Your task to perform on an android device: Turn off the flashlight Image 0: 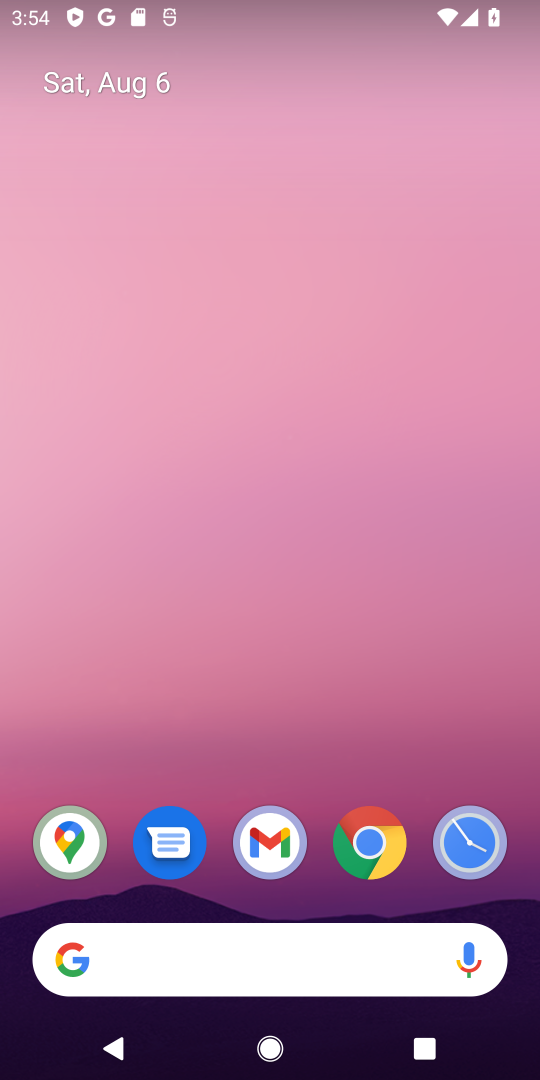
Step 0: drag from (494, 1013) to (372, 184)
Your task to perform on an android device: Turn off the flashlight Image 1: 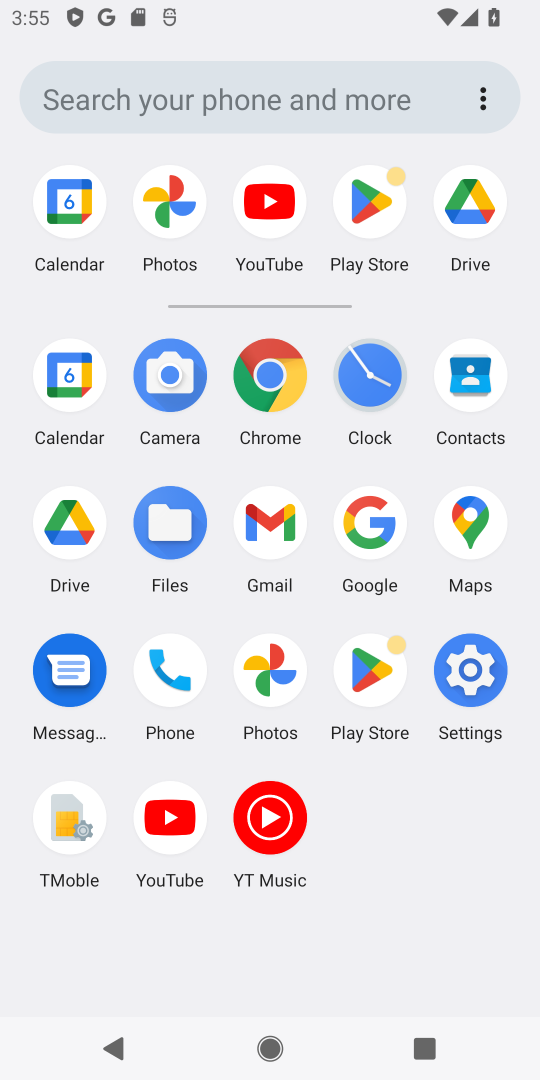
Step 1: click (464, 681)
Your task to perform on an android device: Turn off the flashlight Image 2: 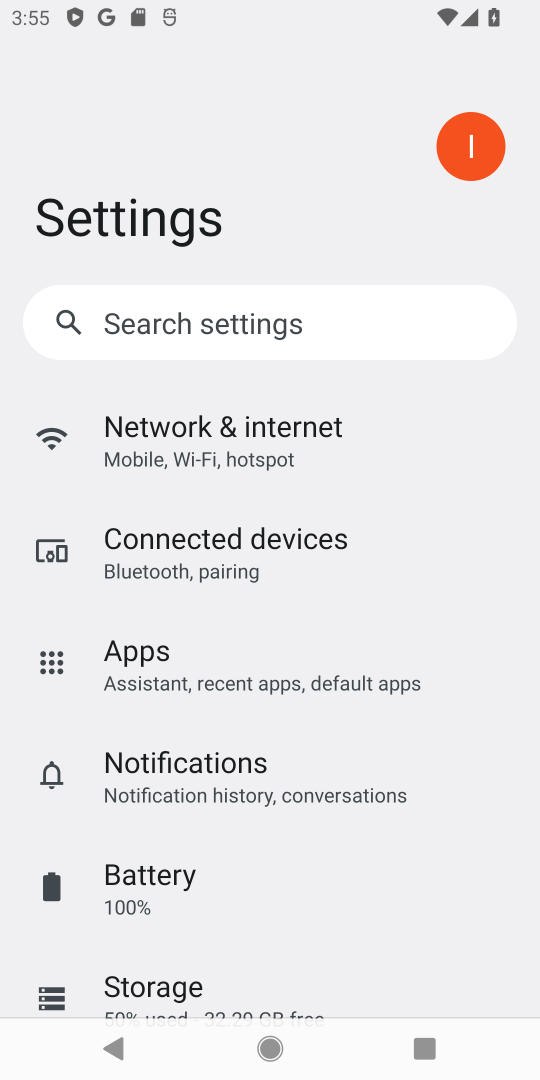
Step 2: drag from (343, 928) to (366, 424)
Your task to perform on an android device: Turn off the flashlight Image 3: 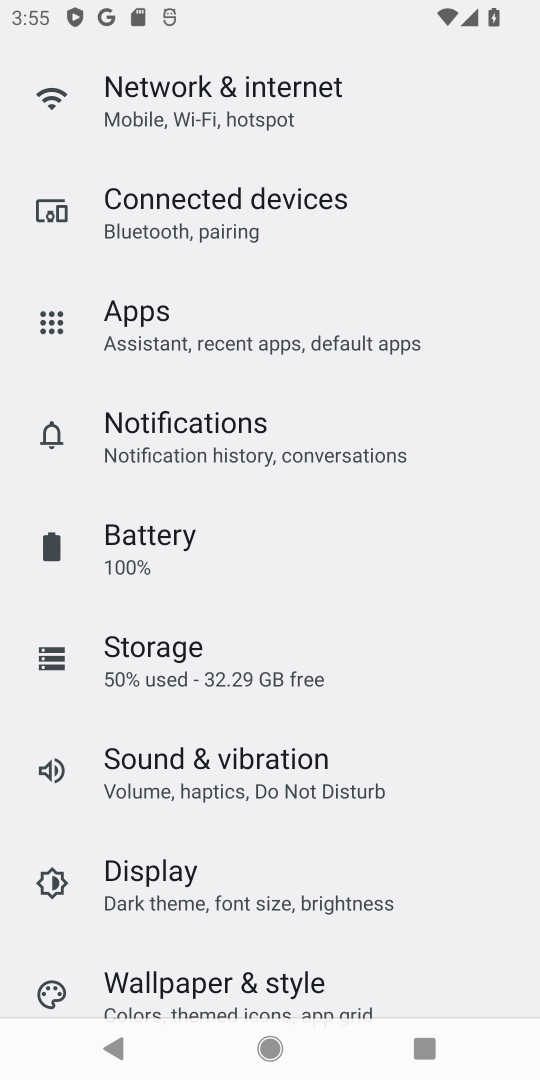
Step 3: click (174, 884)
Your task to perform on an android device: Turn off the flashlight Image 4: 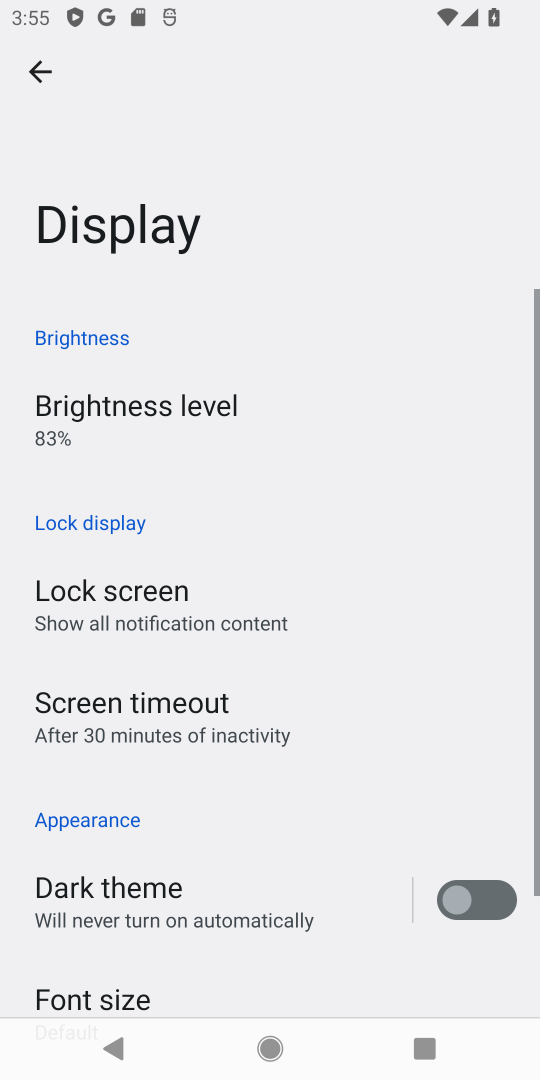
Step 4: task complete